Your task to perform on an android device: see creations saved in the google photos Image 0: 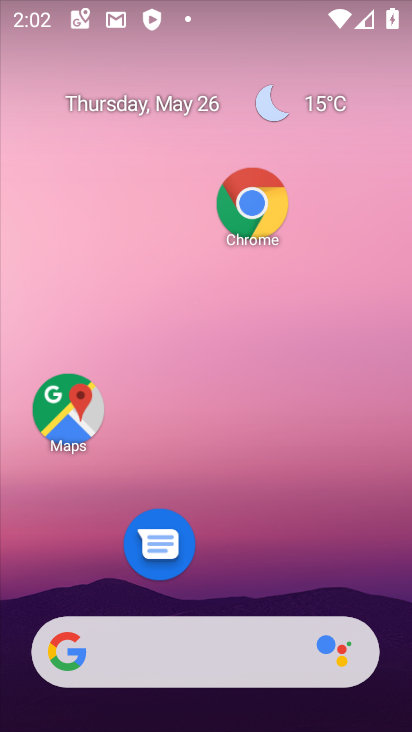
Step 0: drag from (217, 728) to (203, 143)
Your task to perform on an android device: see creations saved in the google photos Image 1: 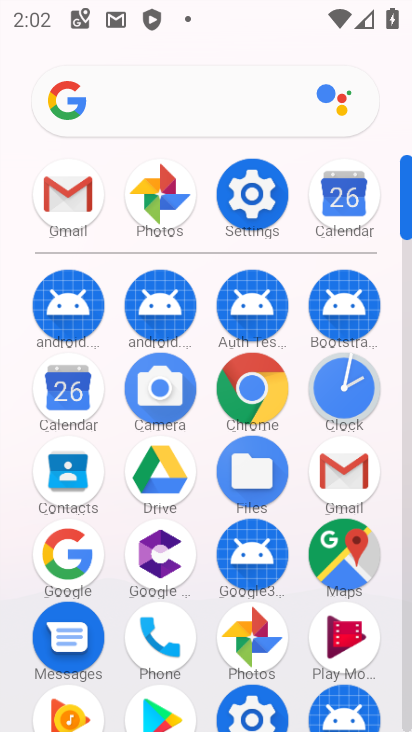
Step 1: click (146, 191)
Your task to perform on an android device: see creations saved in the google photos Image 2: 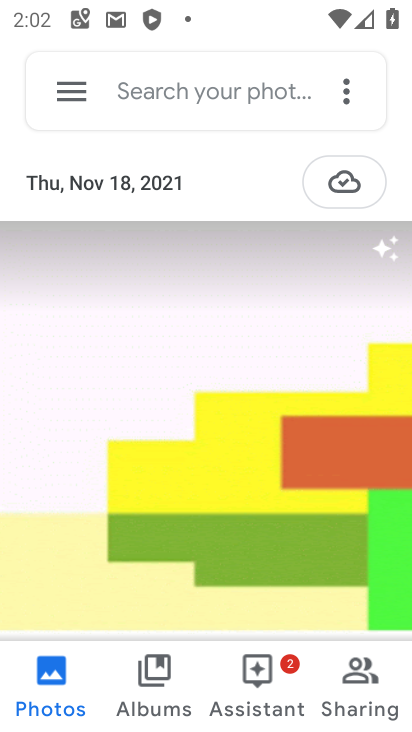
Step 2: click (229, 101)
Your task to perform on an android device: see creations saved in the google photos Image 3: 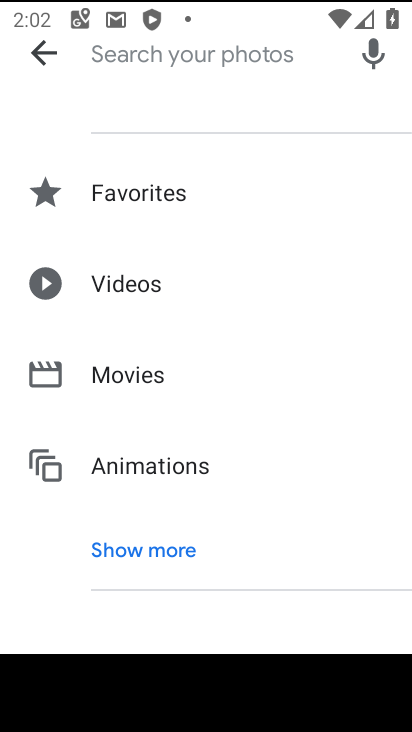
Step 3: click (185, 543)
Your task to perform on an android device: see creations saved in the google photos Image 4: 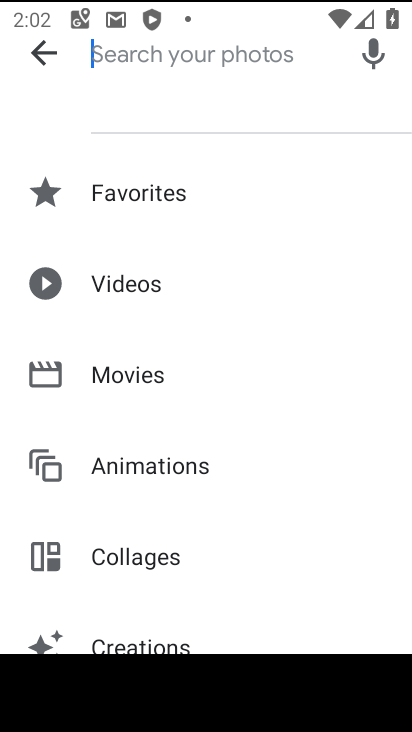
Step 4: click (192, 645)
Your task to perform on an android device: see creations saved in the google photos Image 5: 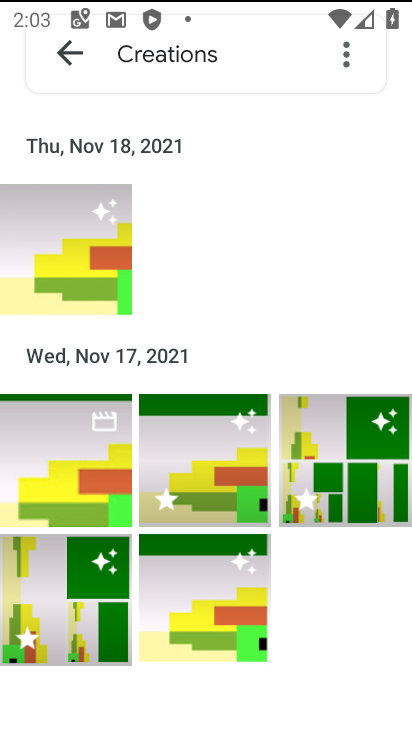
Step 5: task complete